Your task to perform on an android device: change the clock display to analog Image 0: 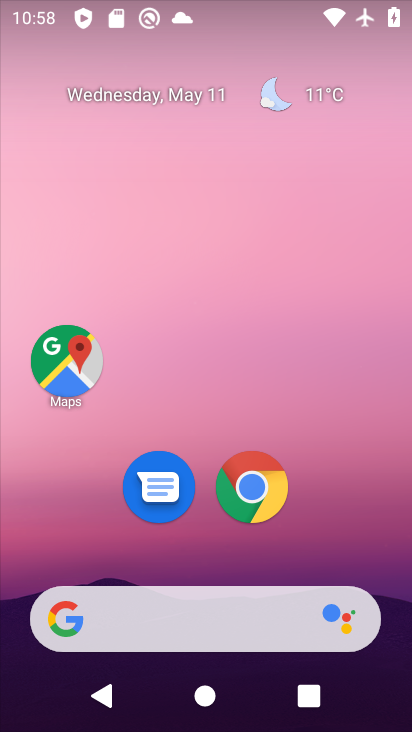
Step 0: drag from (344, 545) to (269, 37)
Your task to perform on an android device: change the clock display to analog Image 1: 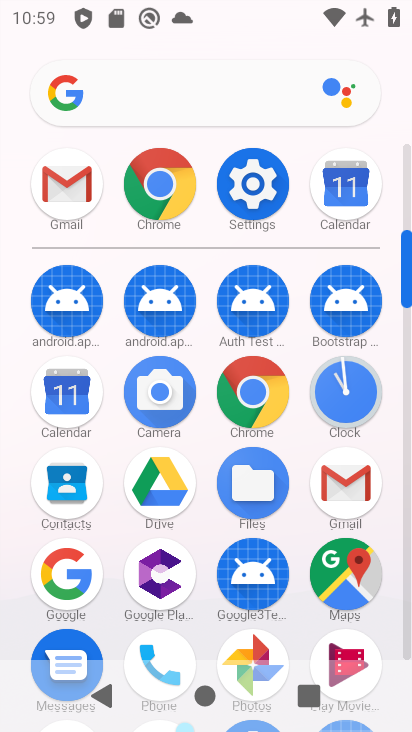
Step 1: click (344, 387)
Your task to perform on an android device: change the clock display to analog Image 2: 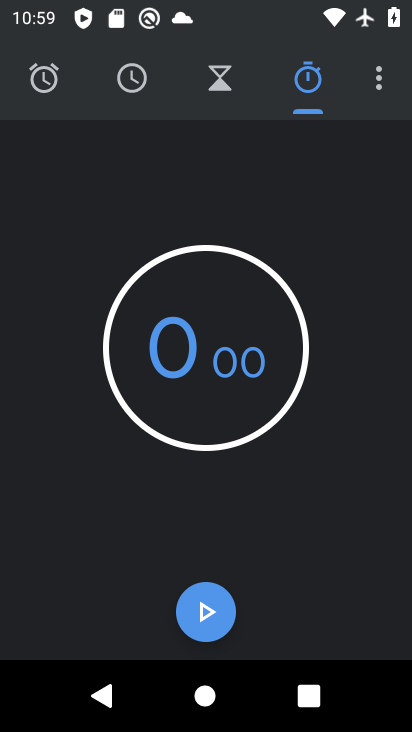
Step 2: drag from (383, 73) to (224, 155)
Your task to perform on an android device: change the clock display to analog Image 3: 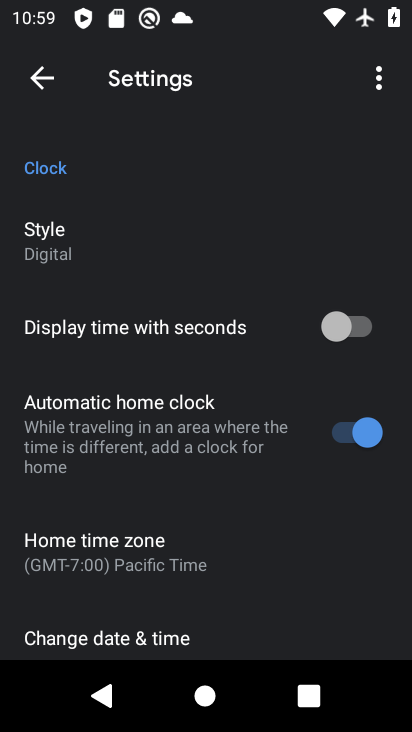
Step 3: click (90, 226)
Your task to perform on an android device: change the clock display to analog Image 4: 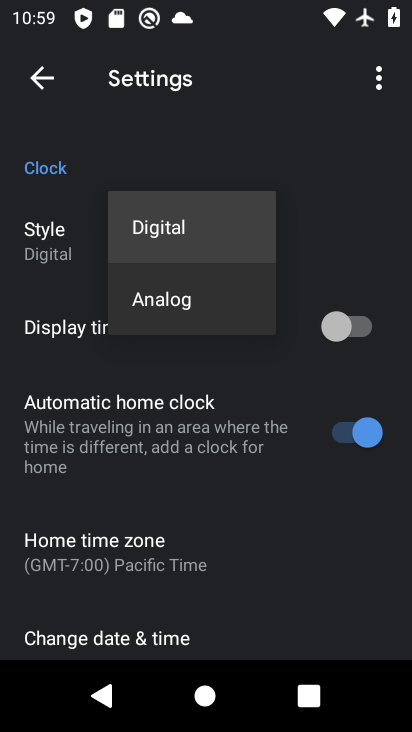
Step 4: click (174, 301)
Your task to perform on an android device: change the clock display to analog Image 5: 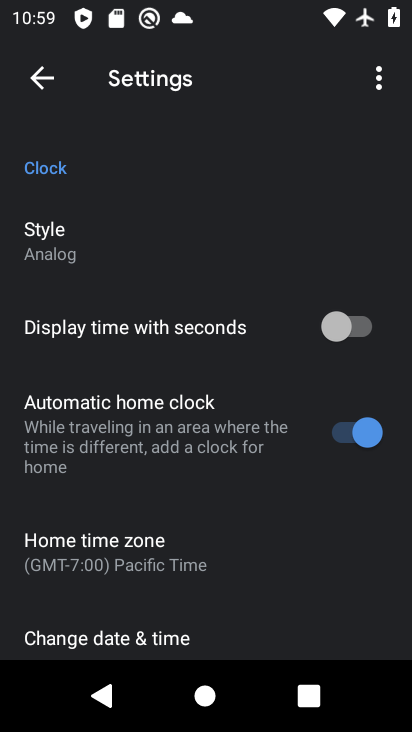
Step 5: task complete